Your task to perform on an android device: all mails in gmail Image 0: 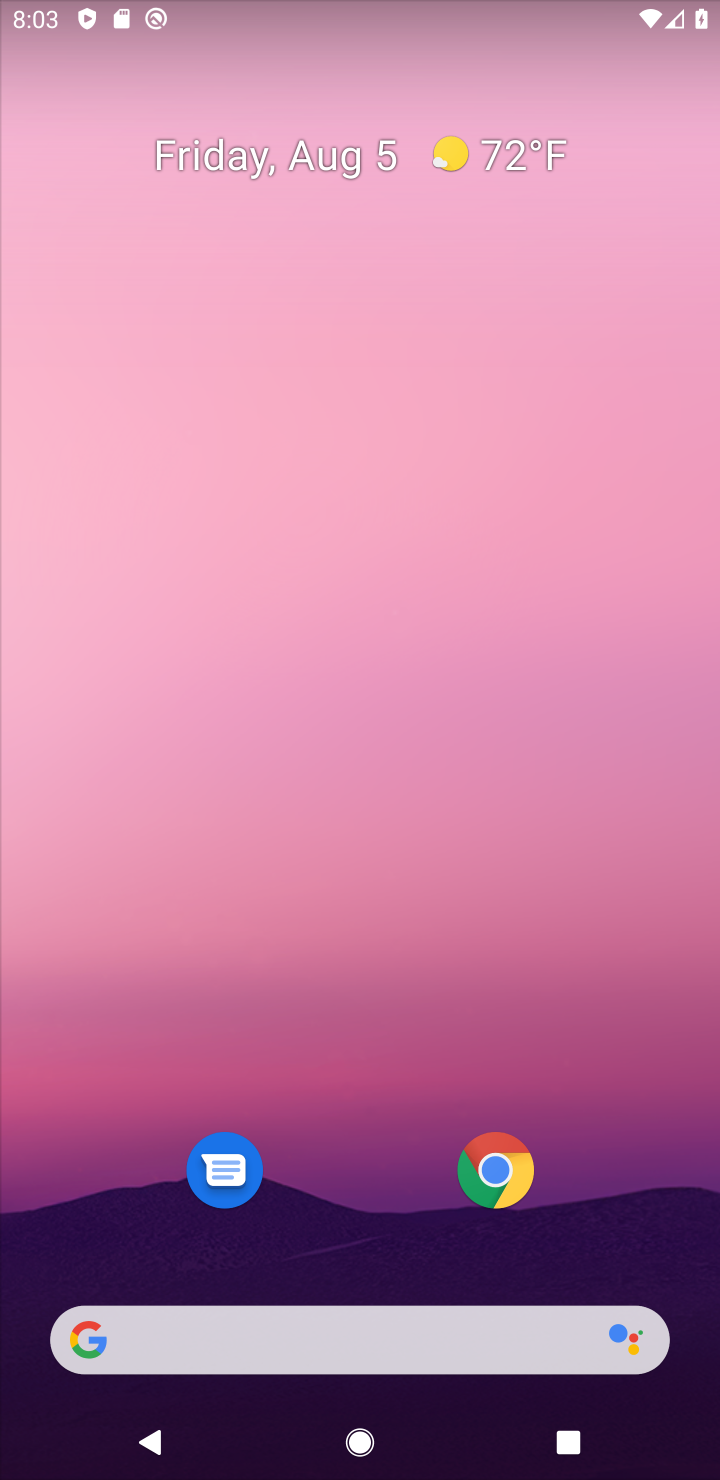
Step 0: drag from (621, 867) to (562, 230)
Your task to perform on an android device: all mails in gmail Image 1: 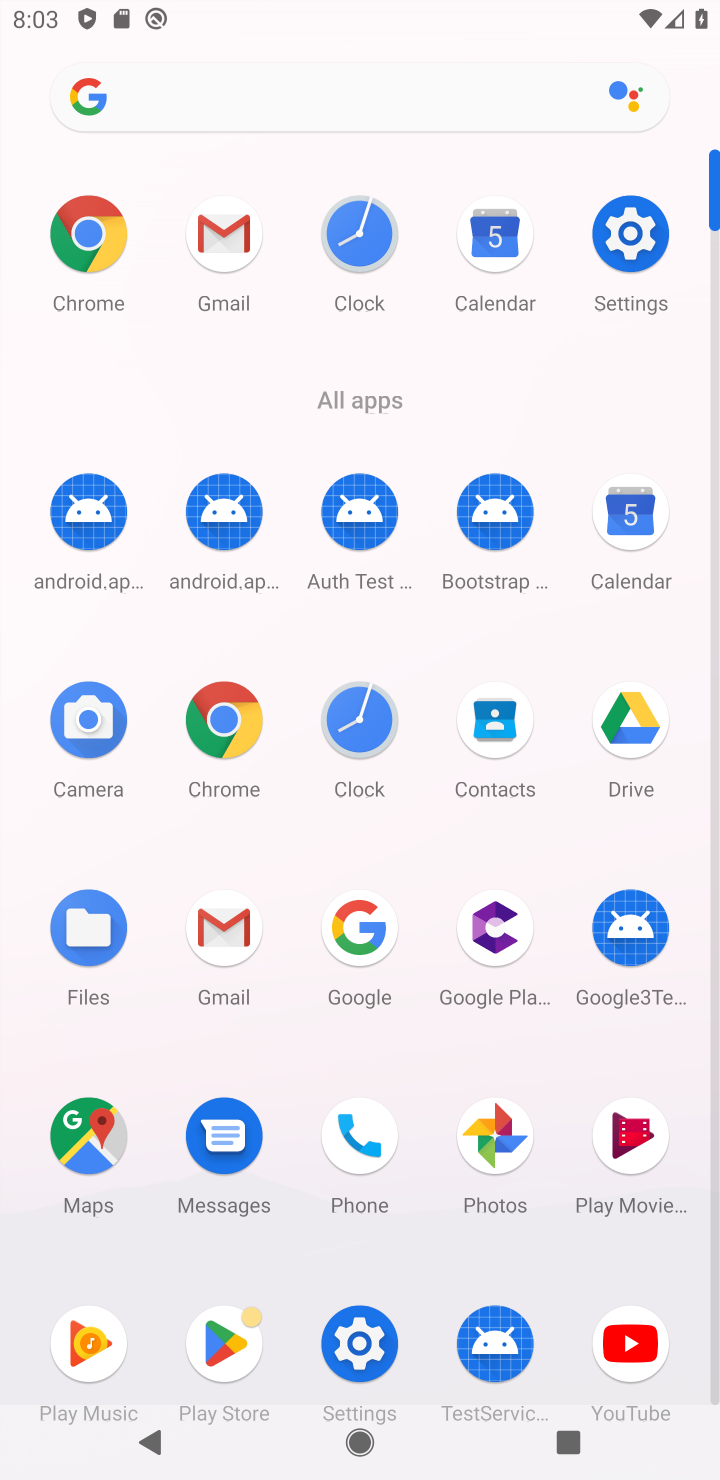
Step 1: click (219, 922)
Your task to perform on an android device: all mails in gmail Image 2: 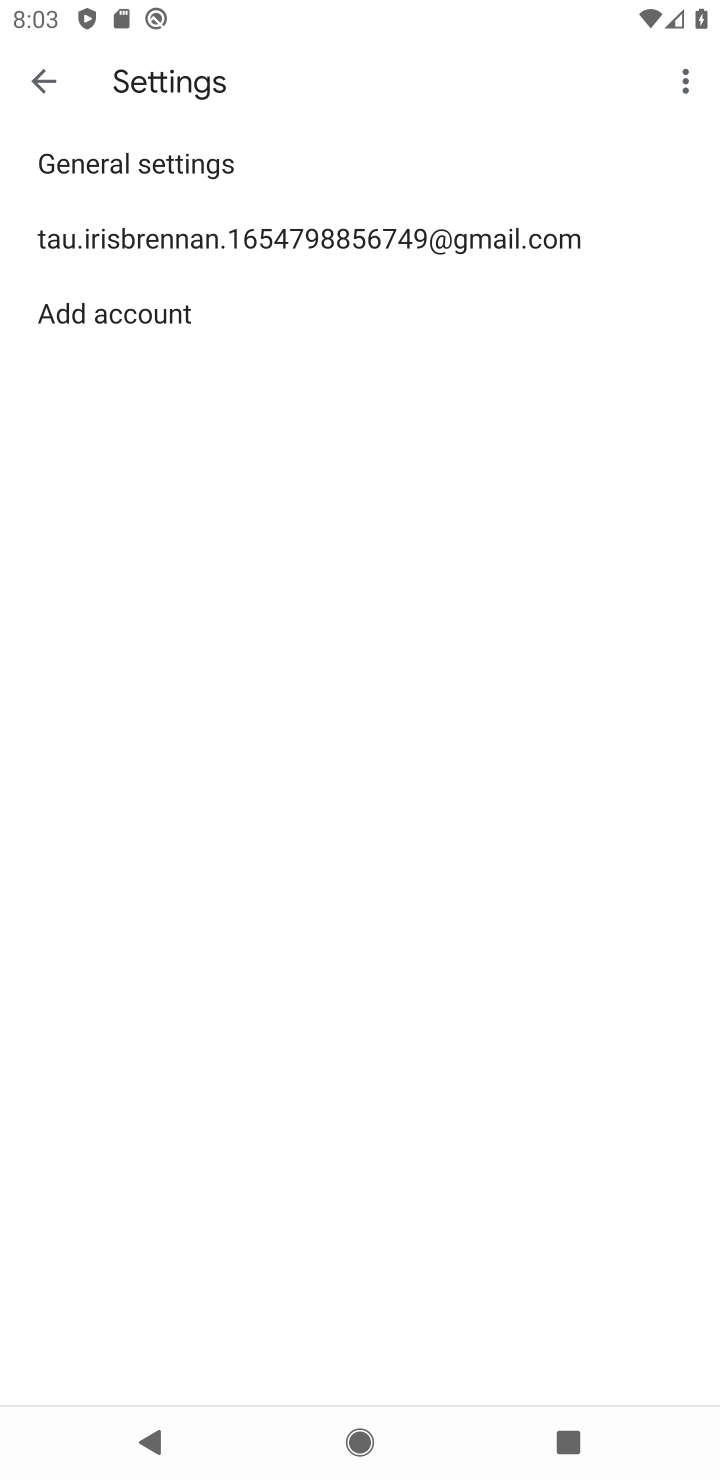
Step 2: press back button
Your task to perform on an android device: all mails in gmail Image 3: 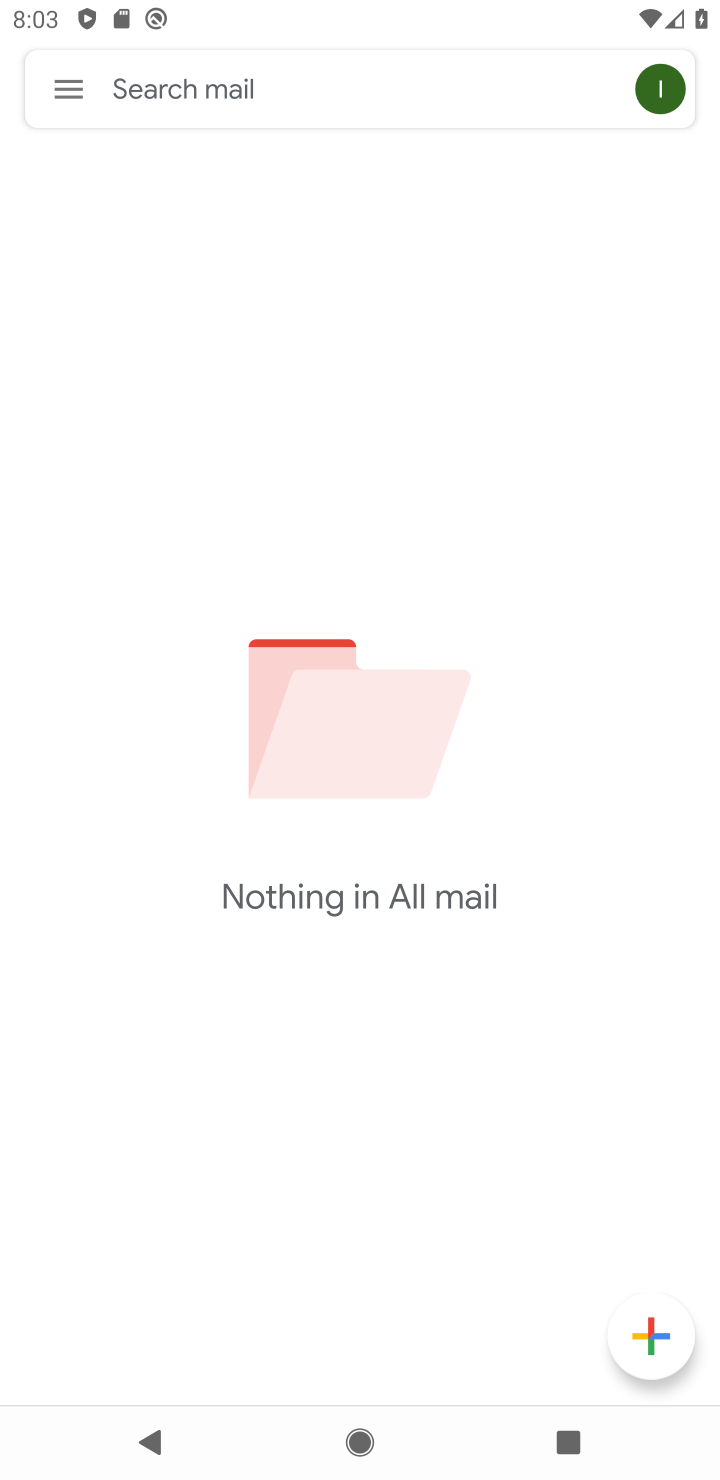
Step 3: click (76, 82)
Your task to perform on an android device: all mails in gmail Image 4: 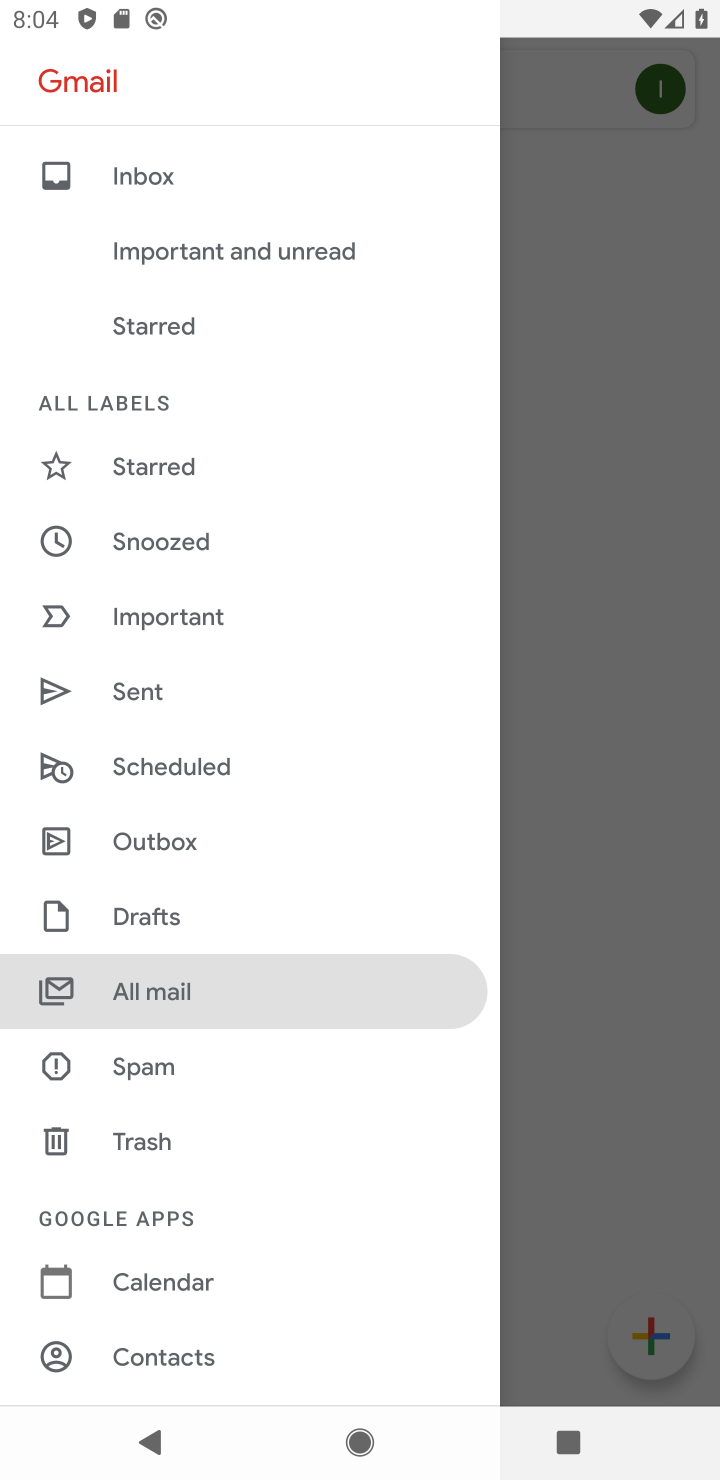
Step 4: click (253, 980)
Your task to perform on an android device: all mails in gmail Image 5: 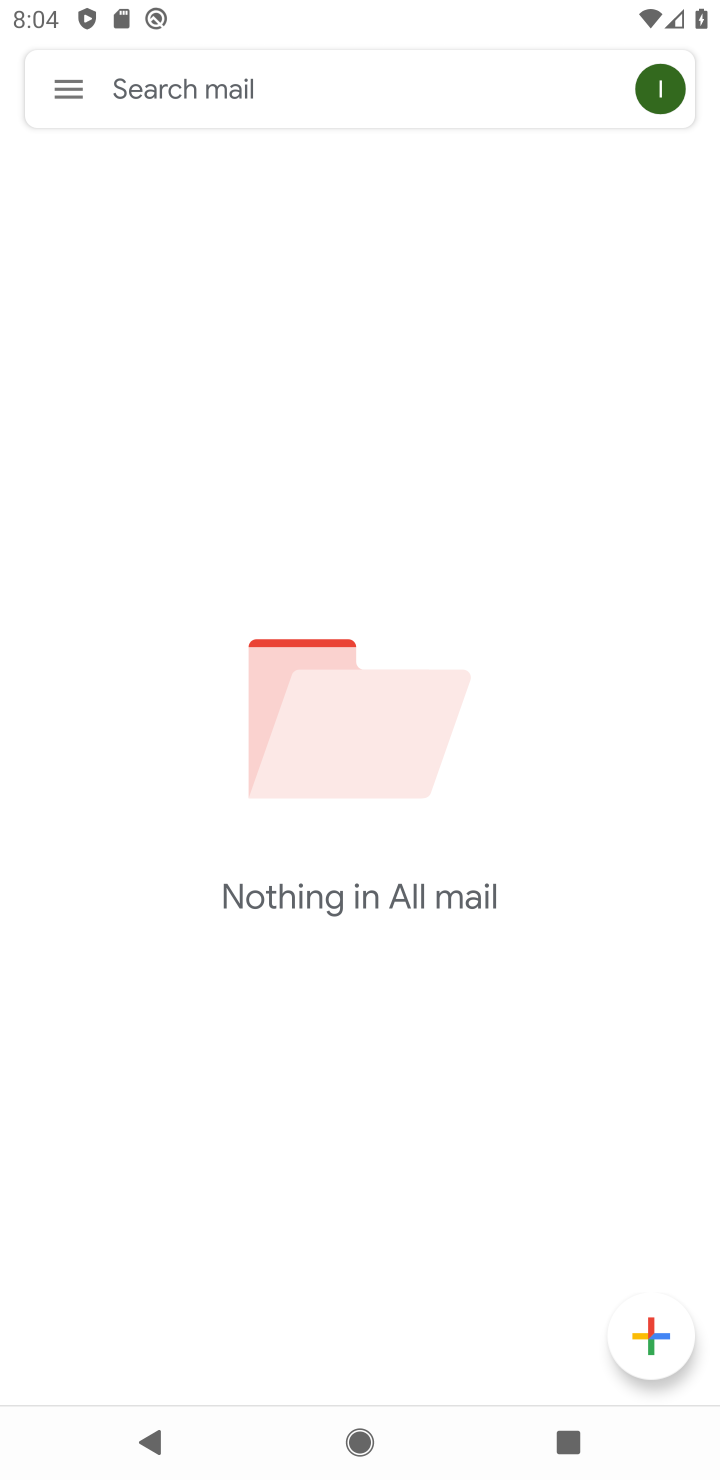
Step 5: task complete